Your task to perform on an android device: open chrome privacy settings Image 0: 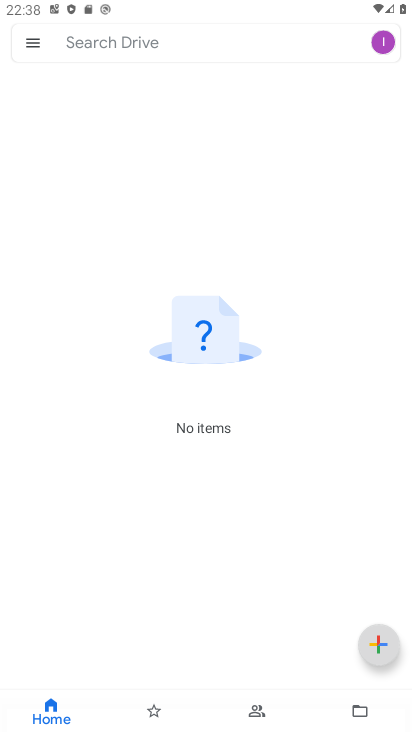
Step 0: press back button
Your task to perform on an android device: open chrome privacy settings Image 1: 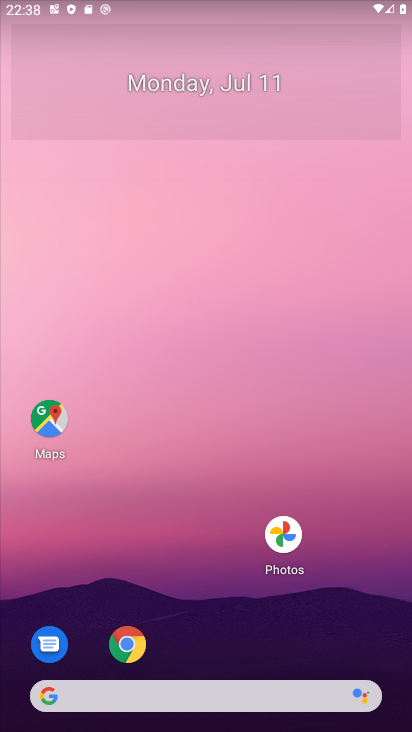
Step 1: drag from (216, 531) to (153, 37)
Your task to perform on an android device: open chrome privacy settings Image 2: 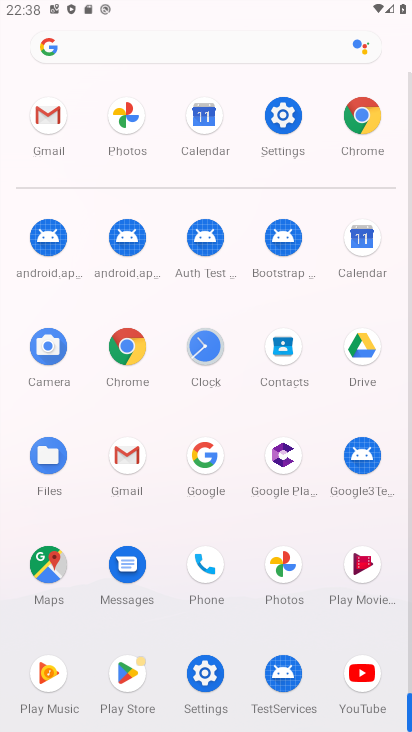
Step 2: click (284, 116)
Your task to perform on an android device: open chrome privacy settings Image 3: 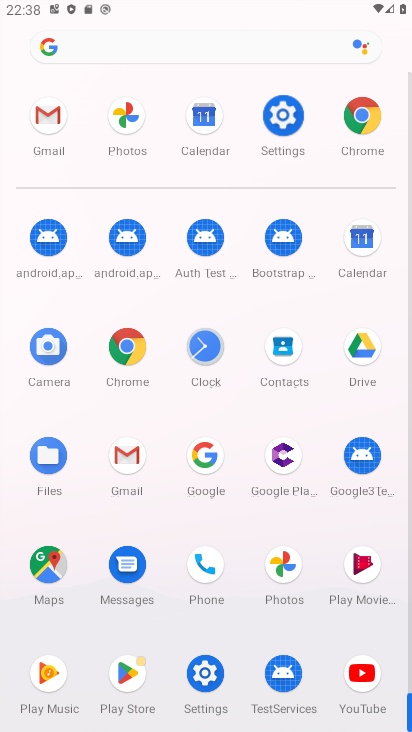
Step 3: click (286, 118)
Your task to perform on an android device: open chrome privacy settings Image 4: 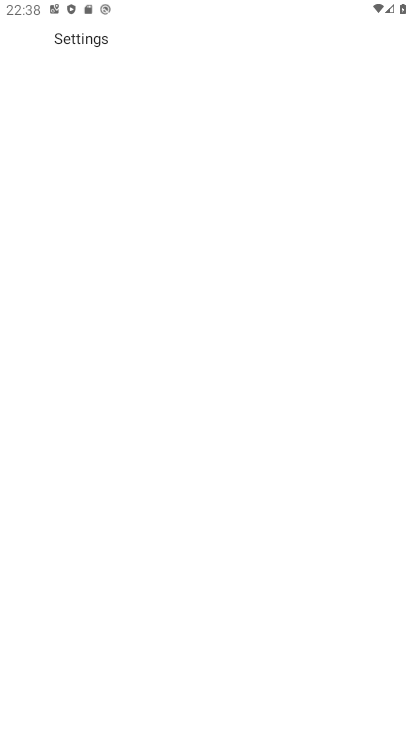
Step 4: click (286, 117)
Your task to perform on an android device: open chrome privacy settings Image 5: 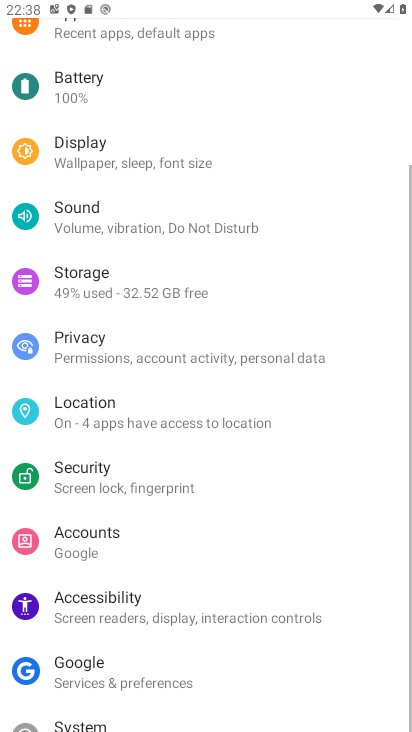
Step 5: click (286, 117)
Your task to perform on an android device: open chrome privacy settings Image 6: 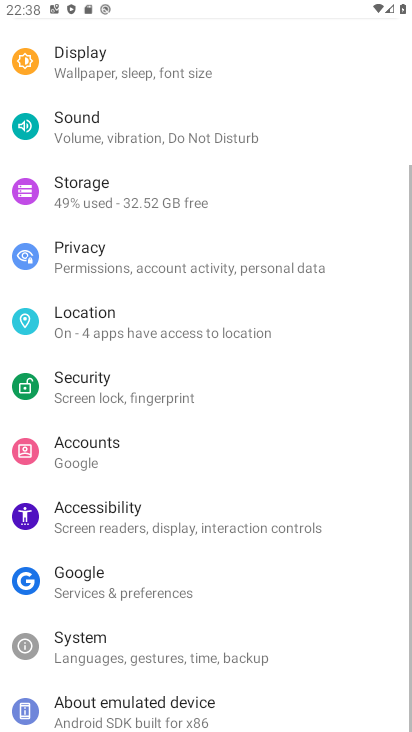
Step 6: click (287, 116)
Your task to perform on an android device: open chrome privacy settings Image 7: 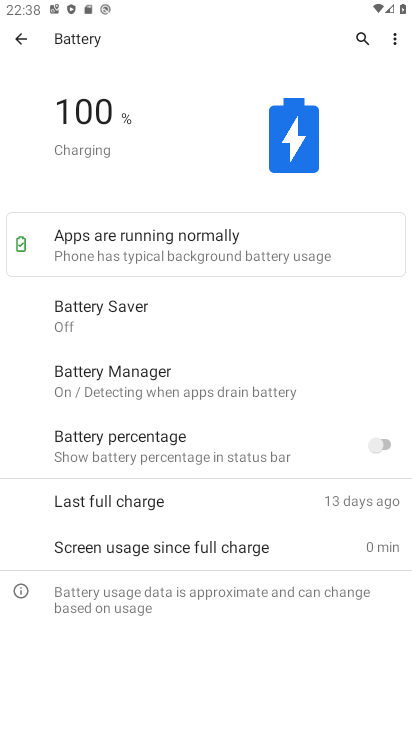
Step 7: click (18, 37)
Your task to perform on an android device: open chrome privacy settings Image 8: 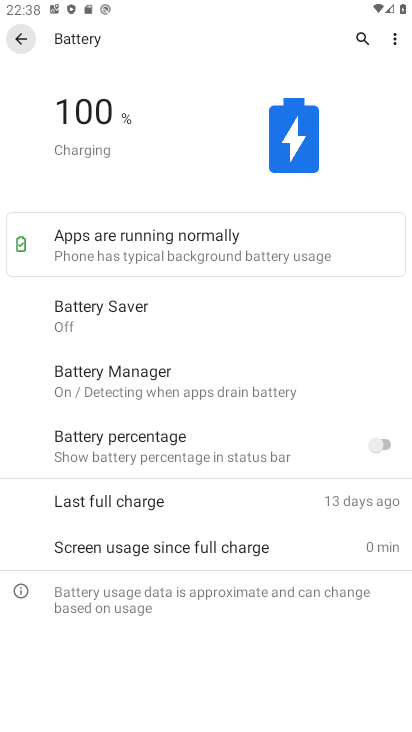
Step 8: click (19, 38)
Your task to perform on an android device: open chrome privacy settings Image 9: 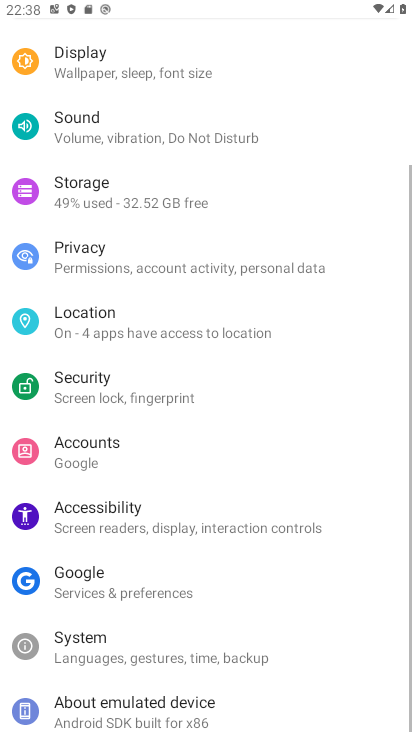
Step 9: click (22, 39)
Your task to perform on an android device: open chrome privacy settings Image 10: 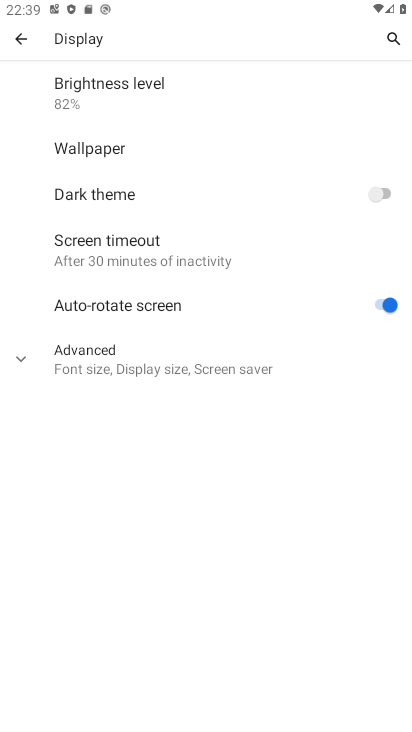
Step 10: click (24, 41)
Your task to perform on an android device: open chrome privacy settings Image 11: 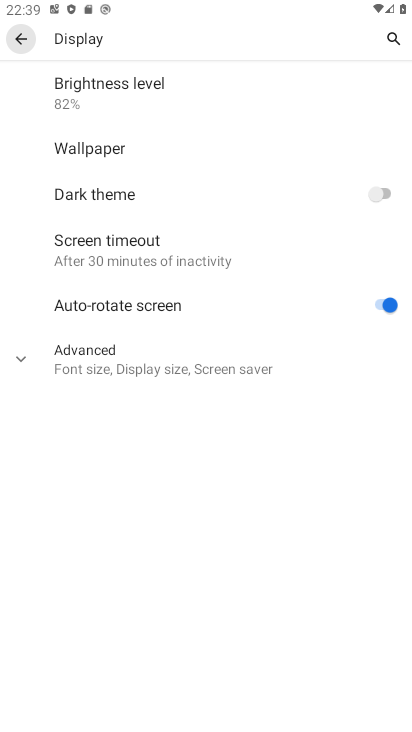
Step 11: click (24, 41)
Your task to perform on an android device: open chrome privacy settings Image 12: 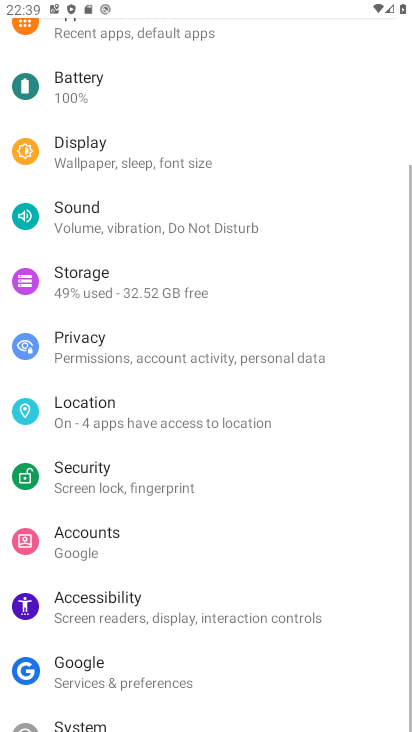
Step 12: click (24, 41)
Your task to perform on an android device: open chrome privacy settings Image 13: 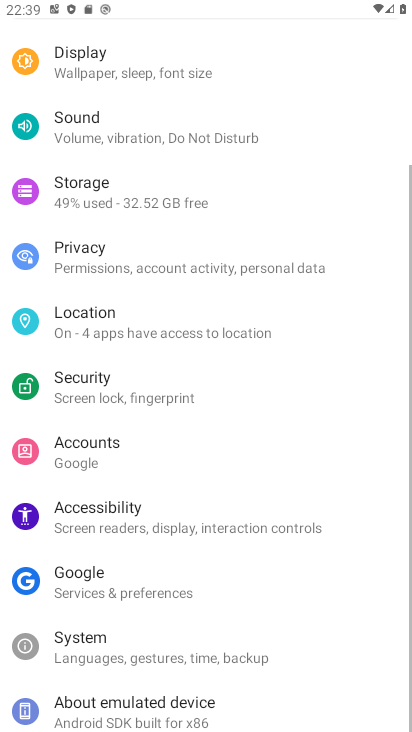
Step 13: click (25, 42)
Your task to perform on an android device: open chrome privacy settings Image 14: 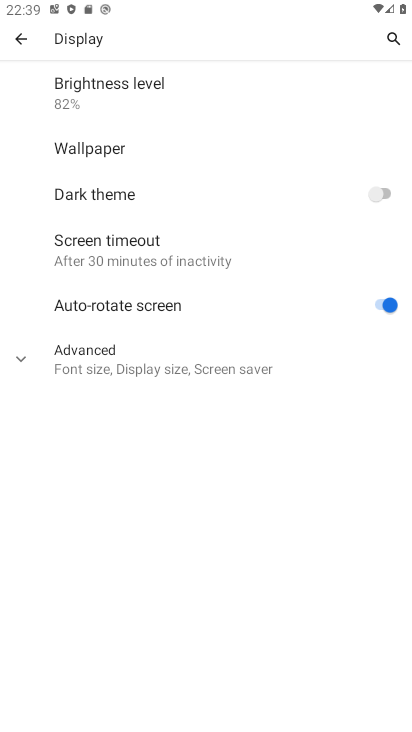
Step 14: click (4, 35)
Your task to perform on an android device: open chrome privacy settings Image 15: 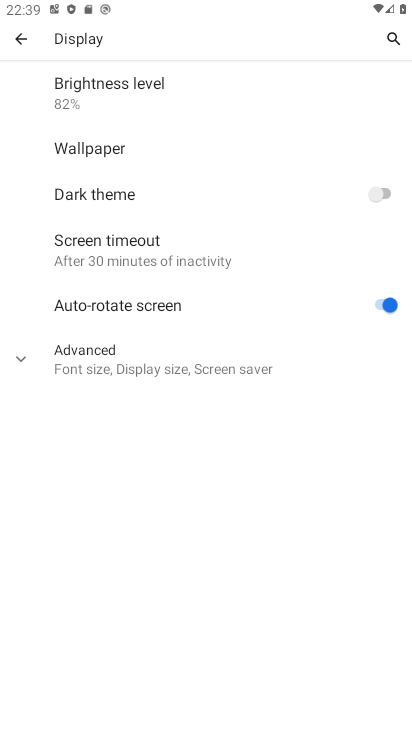
Step 15: click (15, 44)
Your task to perform on an android device: open chrome privacy settings Image 16: 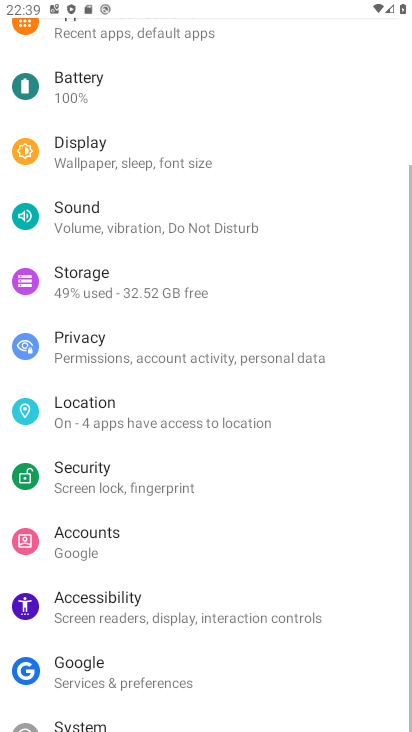
Step 16: click (18, 45)
Your task to perform on an android device: open chrome privacy settings Image 17: 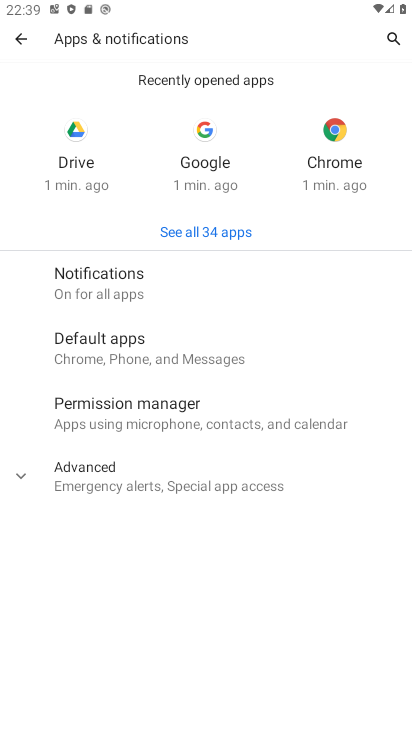
Step 17: click (33, 34)
Your task to perform on an android device: open chrome privacy settings Image 18: 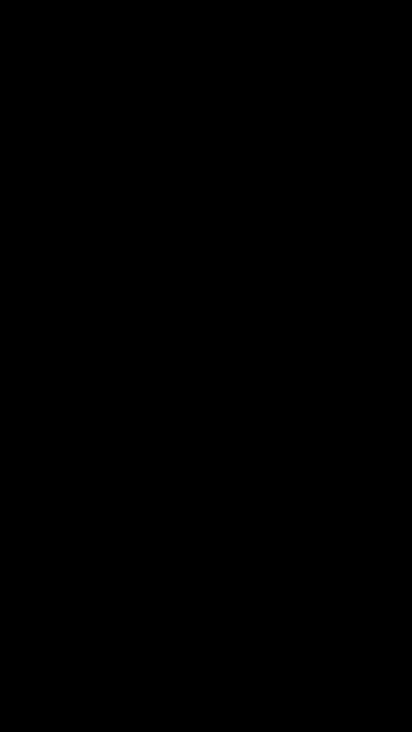
Step 18: click (26, 33)
Your task to perform on an android device: open chrome privacy settings Image 19: 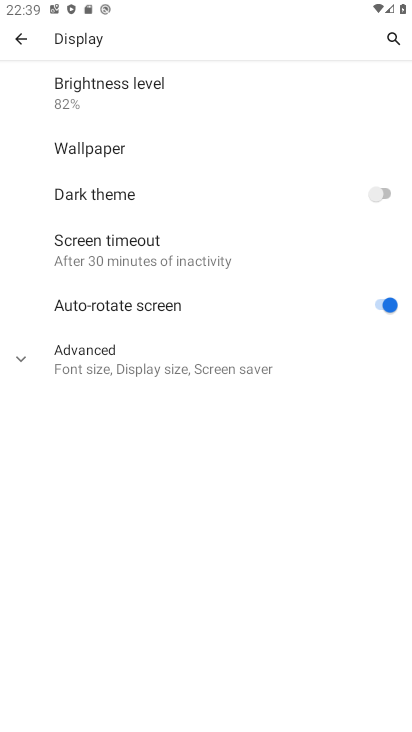
Step 19: click (14, 34)
Your task to perform on an android device: open chrome privacy settings Image 20: 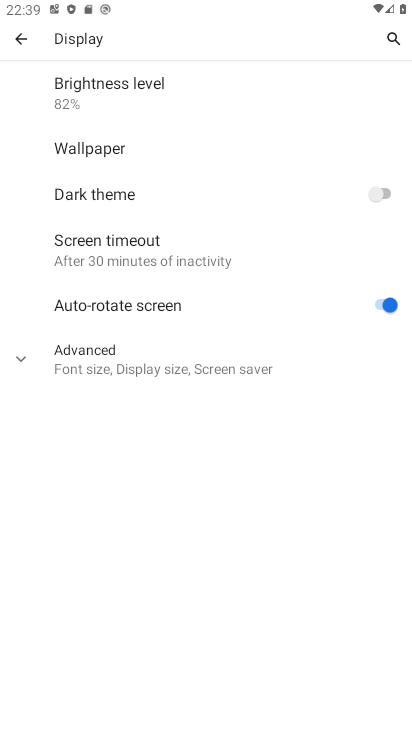
Step 20: click (14, 33)
Your task to perform on an android device: open chrome privacy settings Image 21: 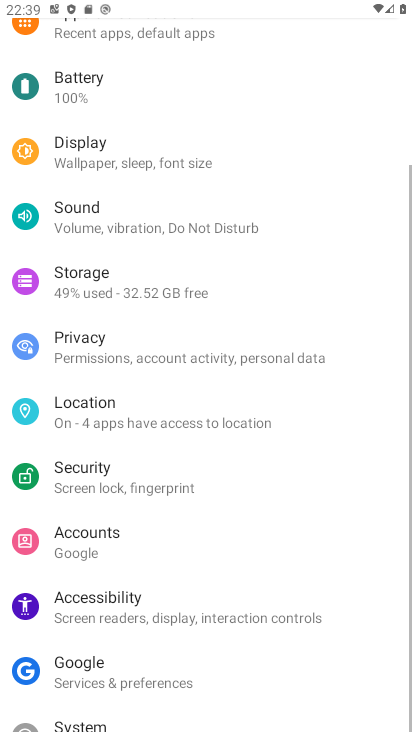
Step 21: click (15, 32)
Your task to perform on an android device: open chrome privacy settings Image 22: 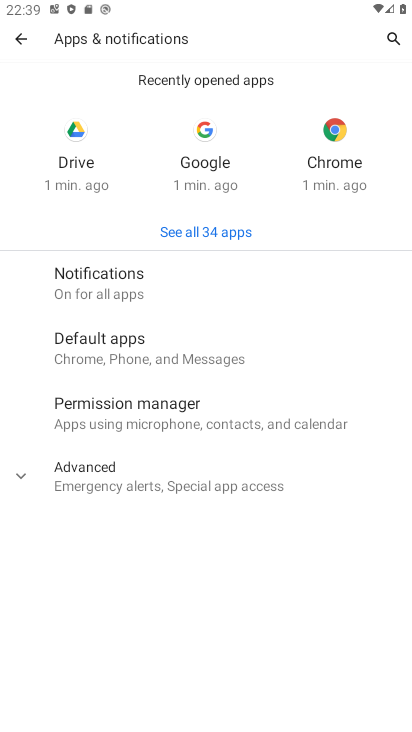
Step 22: press back button
Your task to perform on an android device: open chrome privacy settings Image 23: 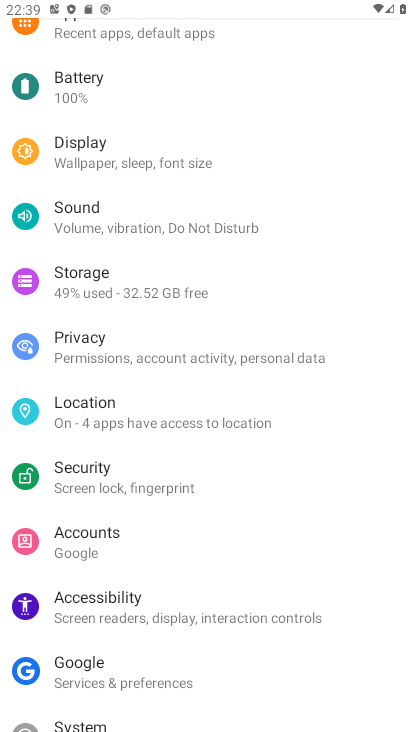
Step 23: click (77, 329)
Your task to perform on an android device: open chrome privacy settings Image 24: 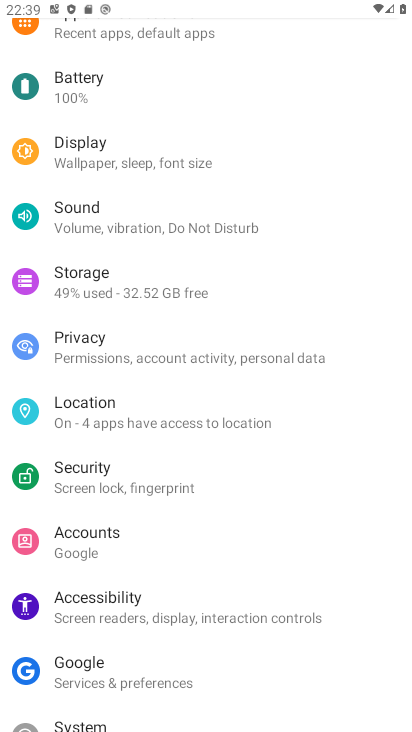
Step 24: click (81, 350)
Your task to perform on an android device: open chrome privacy settings Image 25: 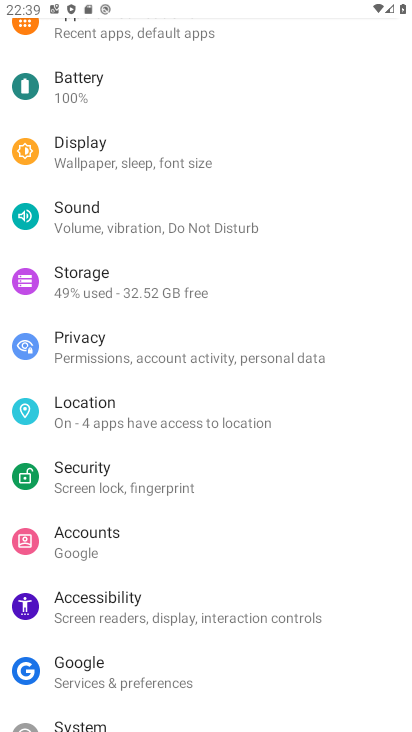
Step 25: click (80, 349)
Your task to perform on an android device: open chrome privacy settings Image 26: 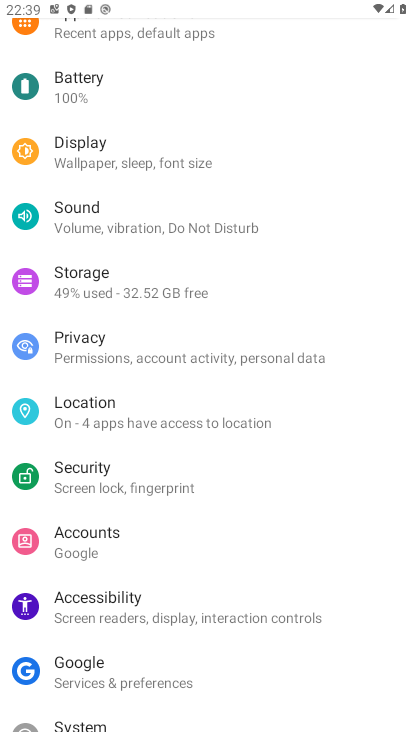
Step 26: click (78, 347)
Your task to perform on an android device: open chrome privacy settings Image 27: 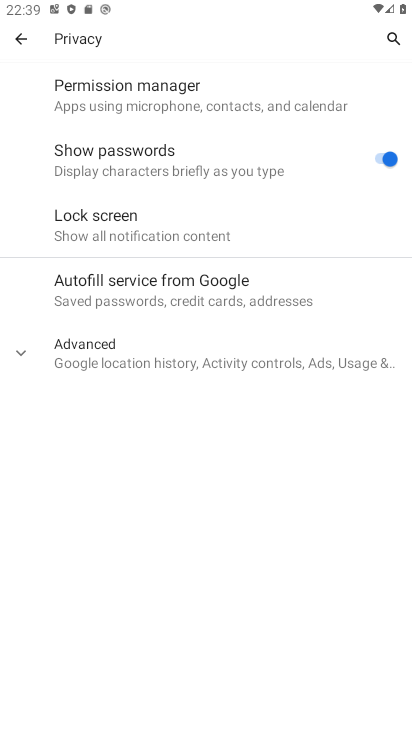
Step 27: task complete